Your task to perform on an android device: Open Maps and search for coffee Image 0: 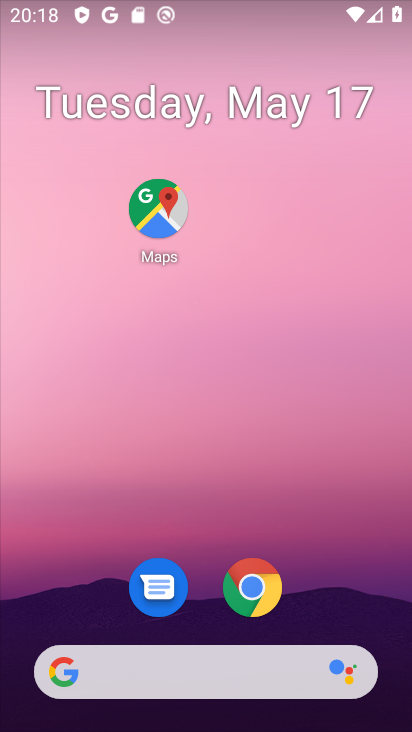
Step 0: click (163, 203)
Your task to perform on an android device: Open Maps and search for coffee Image 1: 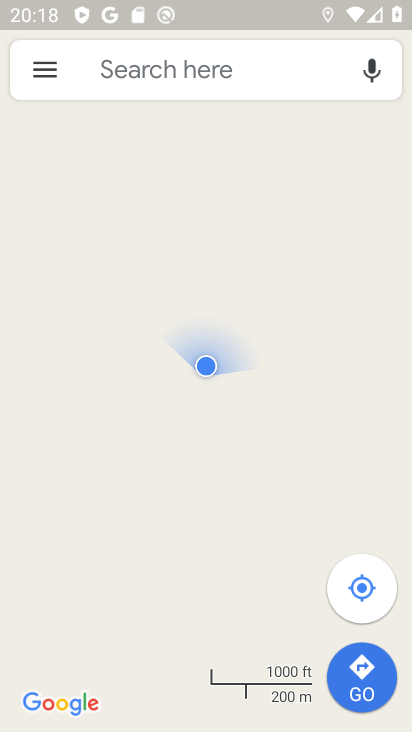
Step 1: click (147, 65)
Your task to perform on an android device: Open Maps and search for coffee Image 2: 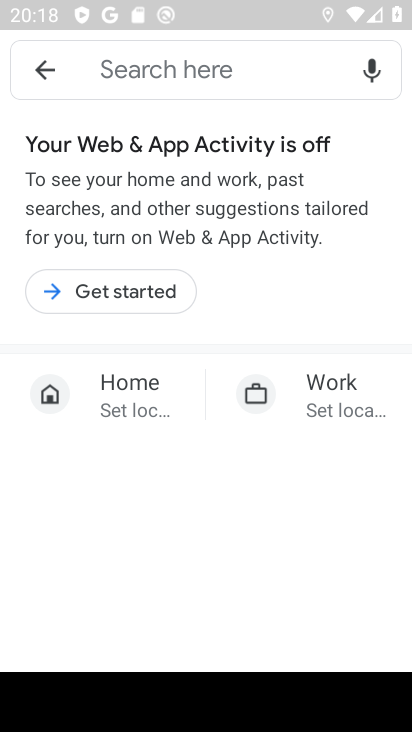
Step 2: click (206, 72)
Your task to perform on an android device: Open Maps and search for coffee Image 3: 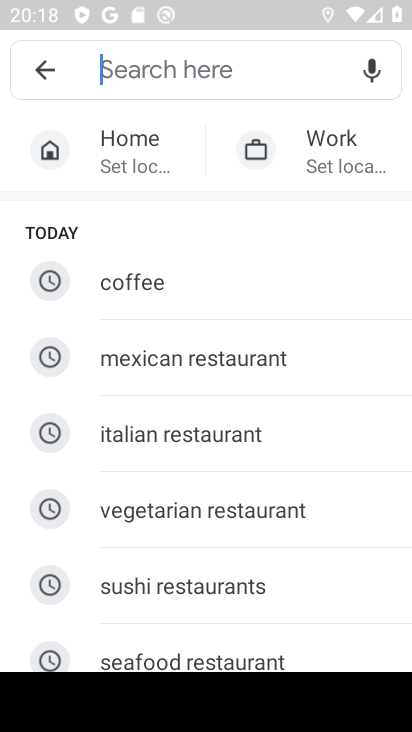
Step 3: click (133, 280)
Your task to perform on an android device: Open Maps and search for coffee Image 4: 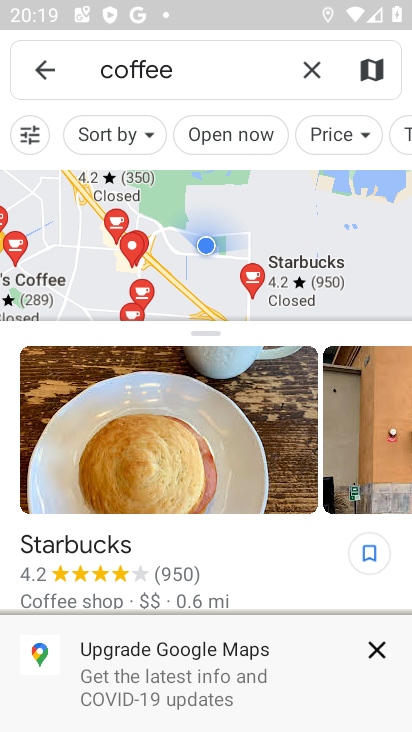
Step 4: click (375, 652)
Your task to perform on an android device: Open Maps and search for coffee Image 5: 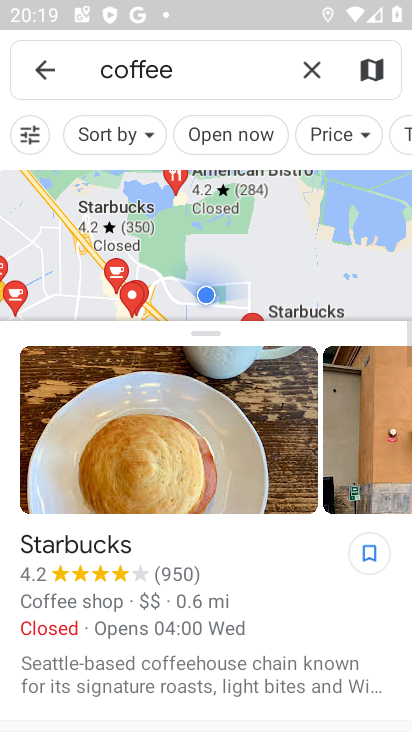
Step 5: task complete